Your task to perform on an android device: set default search engine in the chrome app Image 0: 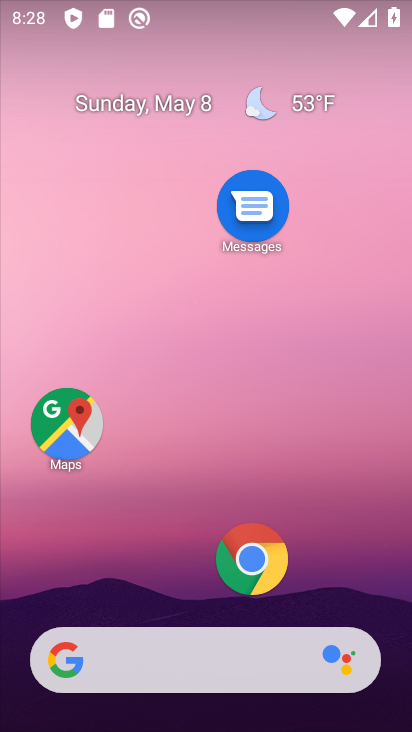
Step 0: click (257, 566)
Your task to perform on an android device: set default search engine in the chrome app Image 1: 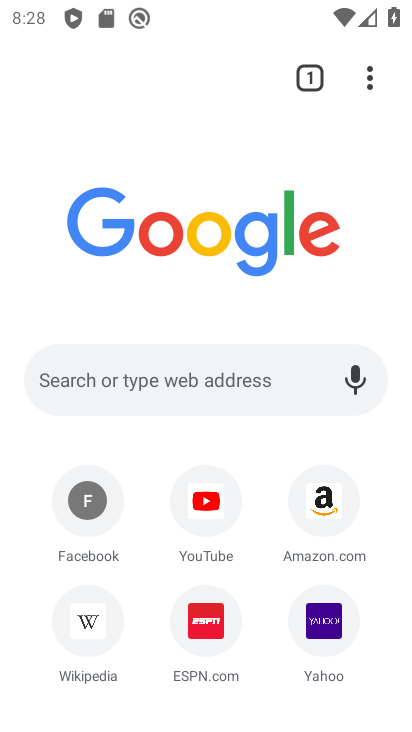
Step 1: click (364, 73)
Your task to perform on an android device: set default search engine in the chrome app Image 2: 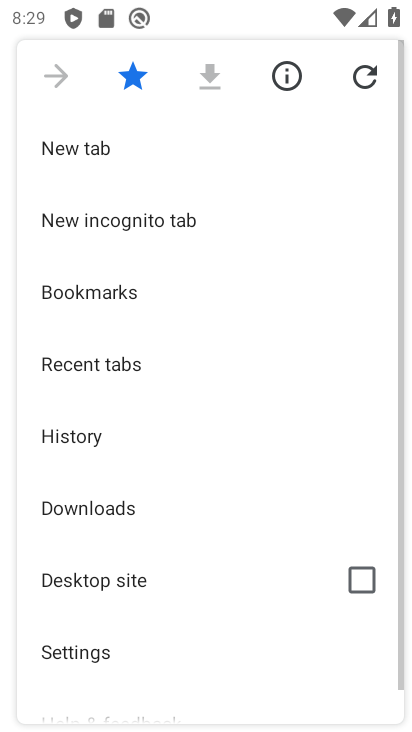
Step 2: click (158, 665)
Your task to perform on an android device: set default search engine in the chrome app Image 3: 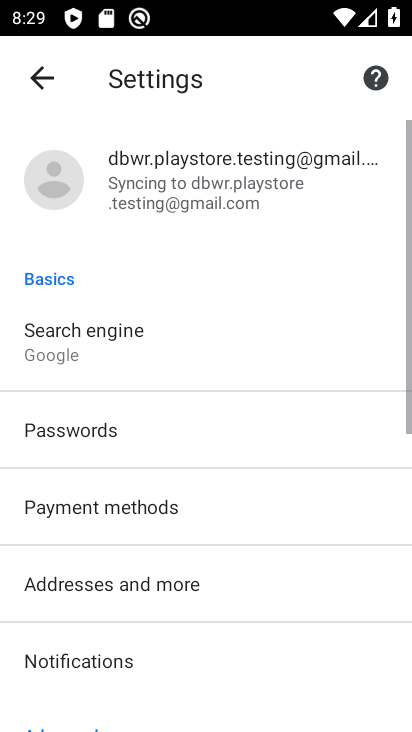
Step 3: click (84, 338)
Your task to perform on an android device: set default search engine in the chrome app Image 4: 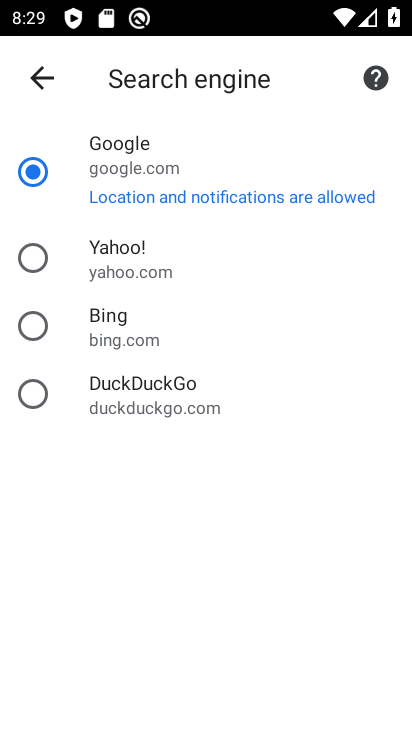
Step 4: task complete